Your task to perform on an android device: Open eBay Image 0: 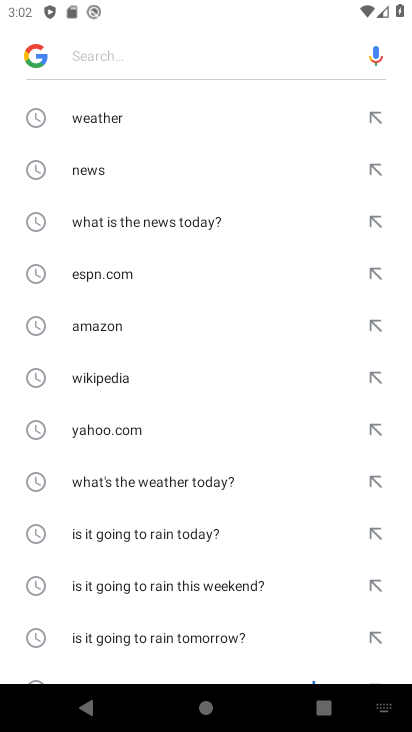
Step 0: press home button
Your task to perform on an android device: Open eBay Image 1: 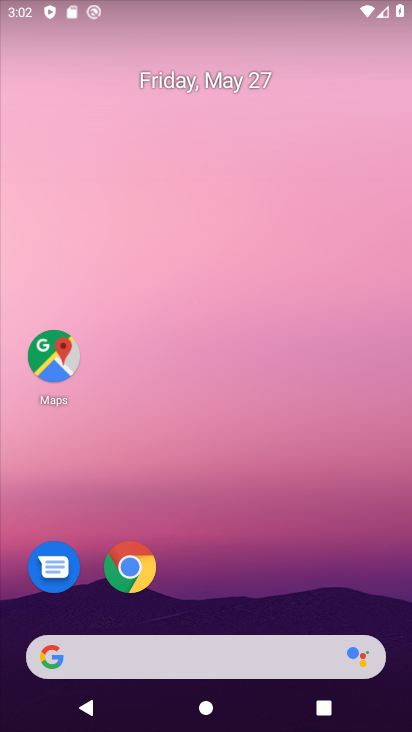
Step 1: drag from (136, 573) to (210, 573)
Your task to perform on an android device: Open eBay Image 2: 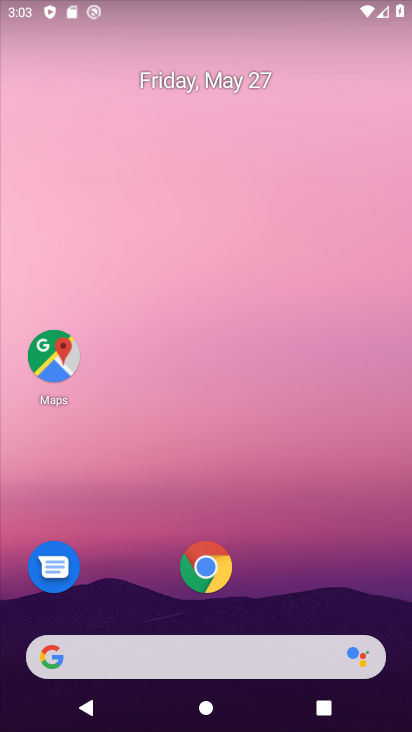
Step 2: click (200, 567)
Your task to perform on an android device: Open eBay Image 3: 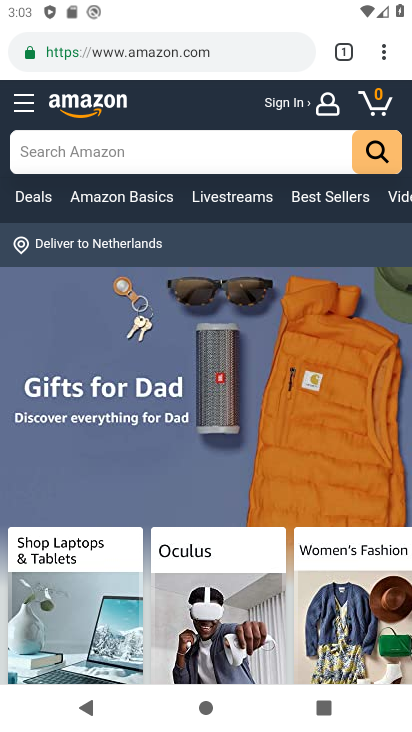
Step 3: click (342, 50)
Your task to perform on an android device: Open eBay Image 4: 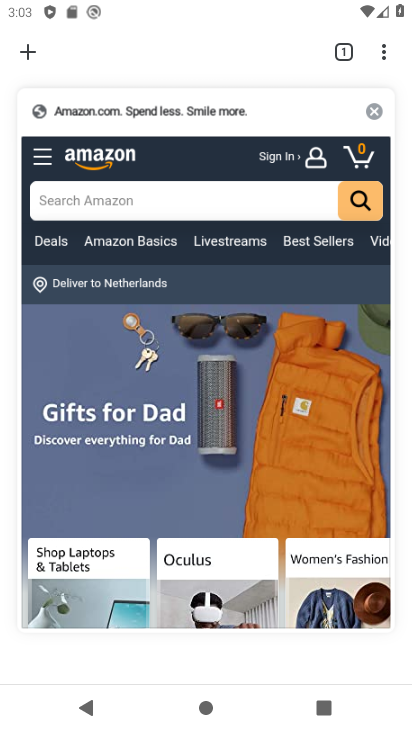
Step 4: click (29, 45)
Your task to perform on an android device: Open eBay Image 5: 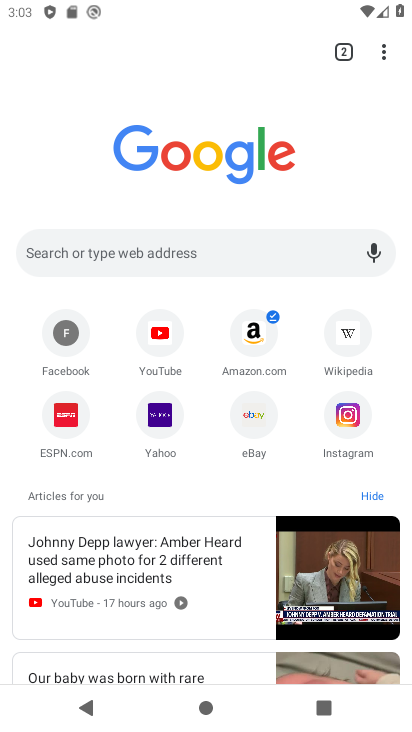
Step 5: click (248, 422)
Your task to perform on an android device: Open eBay Image 6: 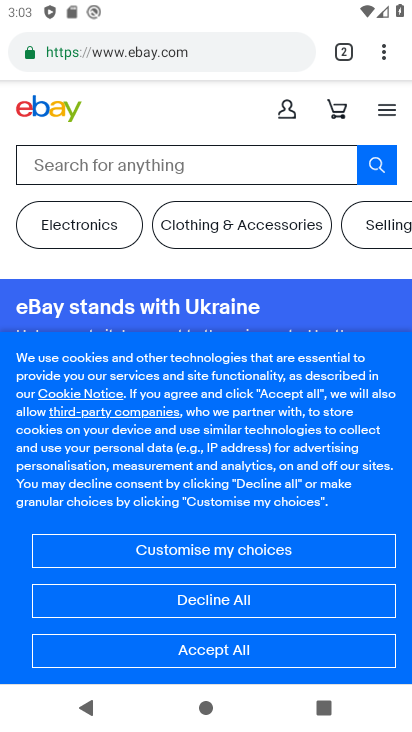
Step 6: task complete